Your task to perform on an android device: Go to Google maps Image 0: 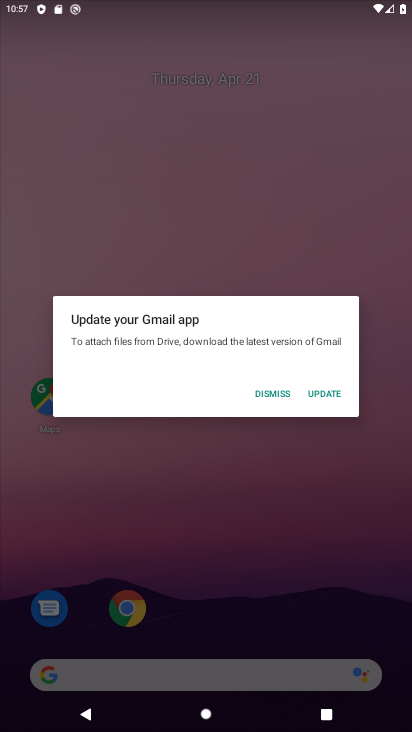
Step 0: press home button
Your task to perform on an android device: Go to Google maps Image 1: 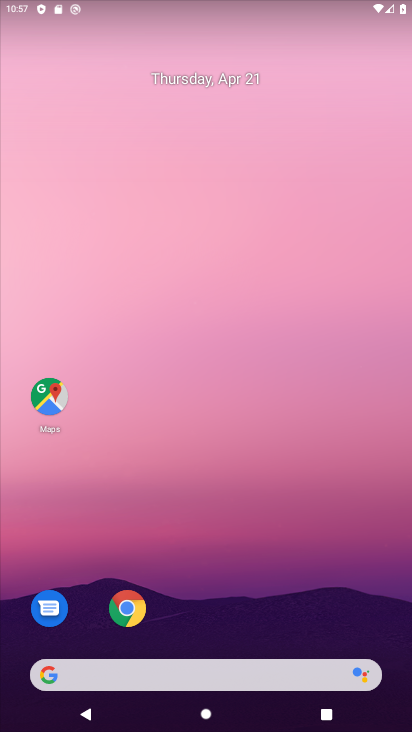
Step 1: click (39, 399)
Your task to perform on an android device: Go to Google maps Image 2: 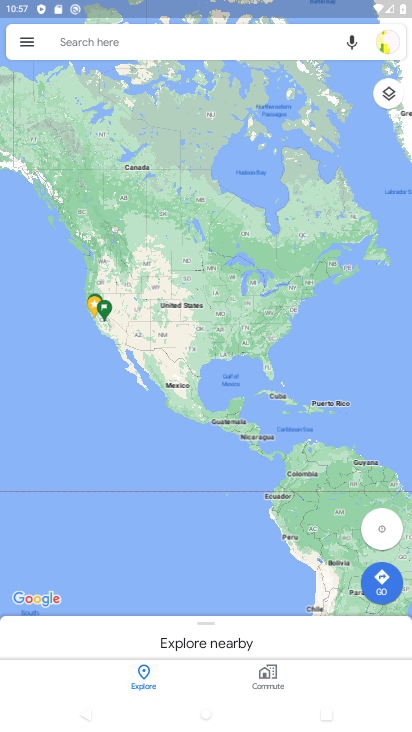
Step 2: task complete